Your task to perform on an android device: allow notifications from all sites in the chrome app Image 0: 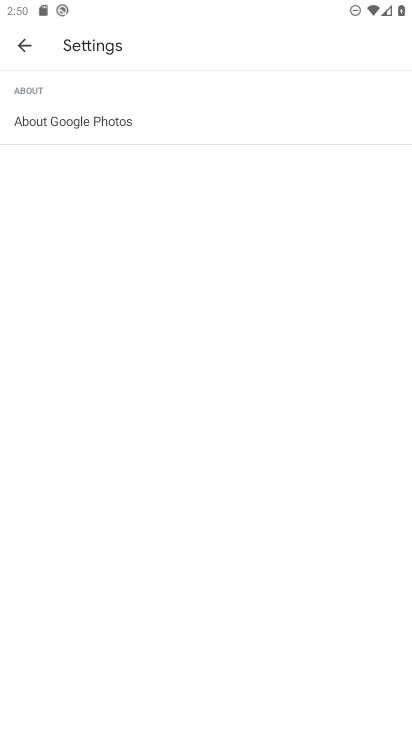
Step 0: press home button
Your task to perform on an android device: allow notifications from all sites in the chrome app Image 1: 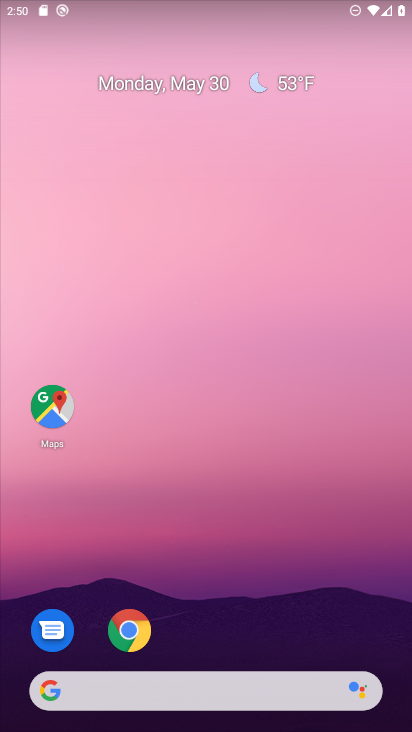
Step 1: click (142, 615)
Your task to perform on an android device: allow notifications from all sites in the chrome app Image 2: 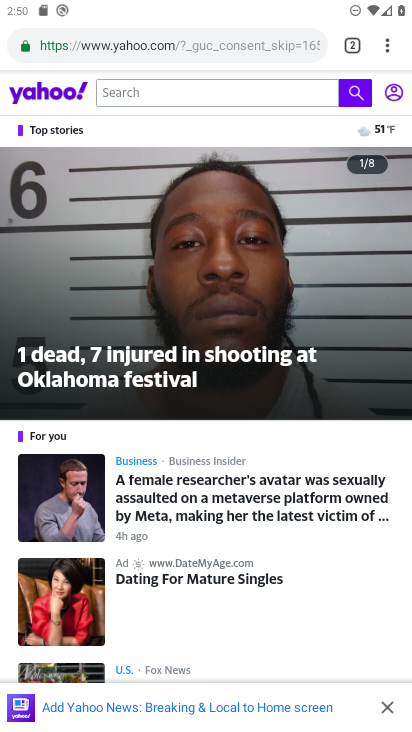
Step 2: drag from (384, 43) to (230, 551)
Your task to perform on an android device: allow notifications from all sites in the chrome app Image 3: 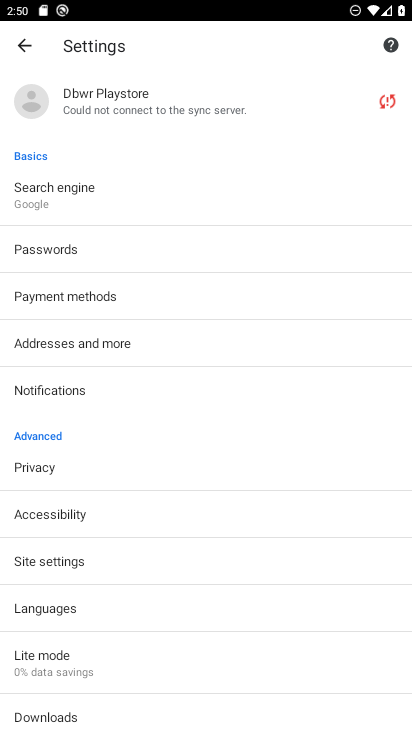
Step 3: click (61, 574)
Your task to perform on an android device: allow notifications from all sites in the chrome app Image 4: 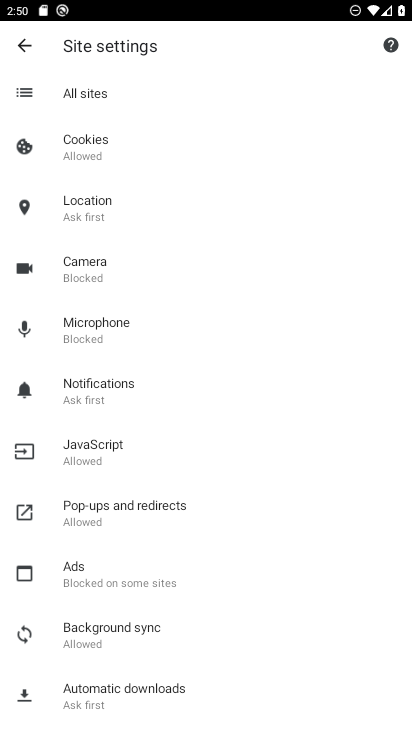
Step 4: click (112, 395)
Your task to perform on an android device: allow notifications from all sites in the chrome app Image 5: 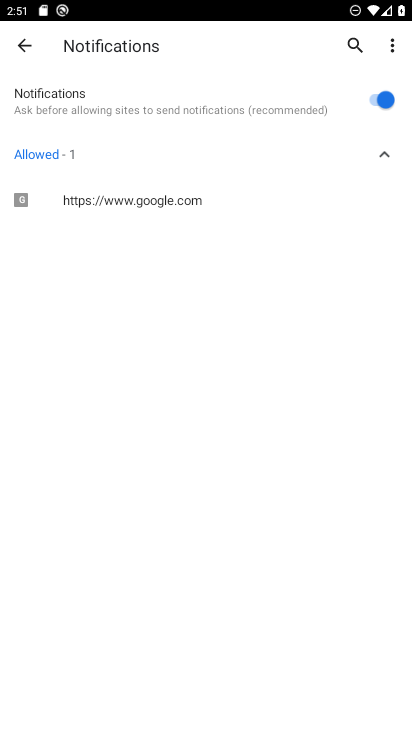
Step 5: task complete